Your task to perform on an android device: Open calendar and show me the second week of next month Image 0: 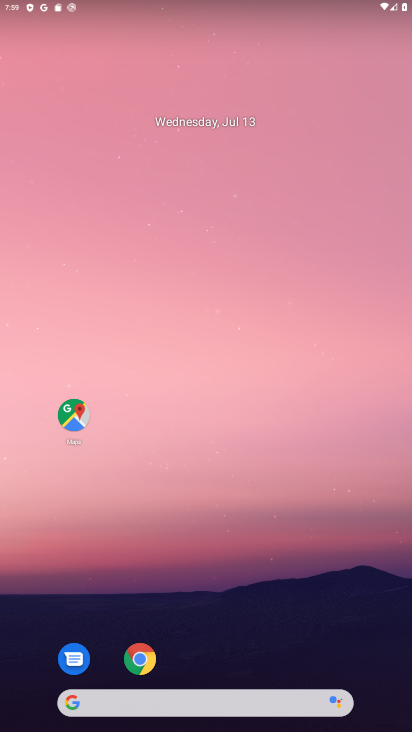
Step 0: drag from (295, 642) to (277, 65)
Your task to perform on an android device: Open calendar and show me the second week of next month Image 1: 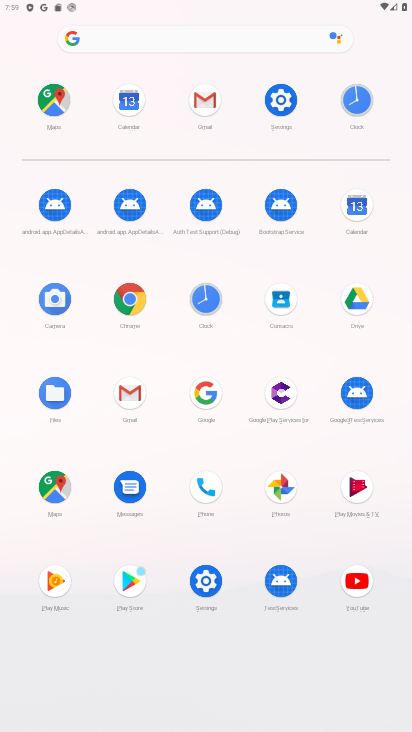
Step 1: click (134, 120)
Your task to perform on an android device: Open calendar and show me the second week of next month Image 2: 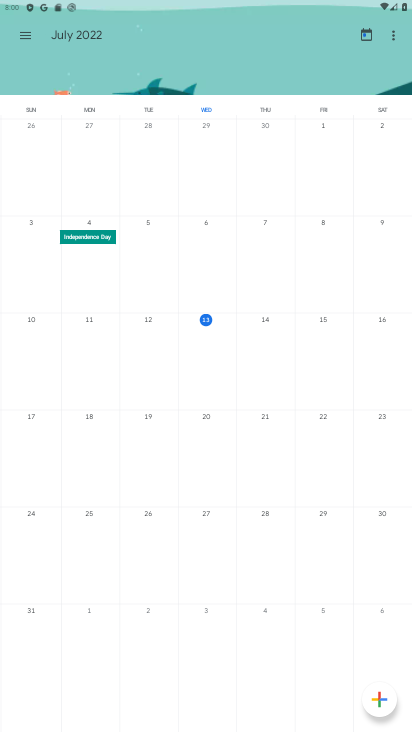
Step 2: click (397, 37)
Your task to perform on an android device: Open calendar and show me the second week of next month Image 3: 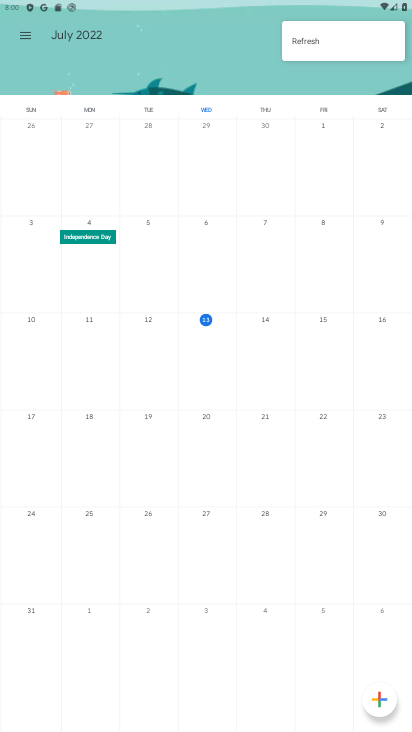
Step 3: click (66, 54)
Your task to perform on an android device: Open calendar and show me the second week of next month Image 4: 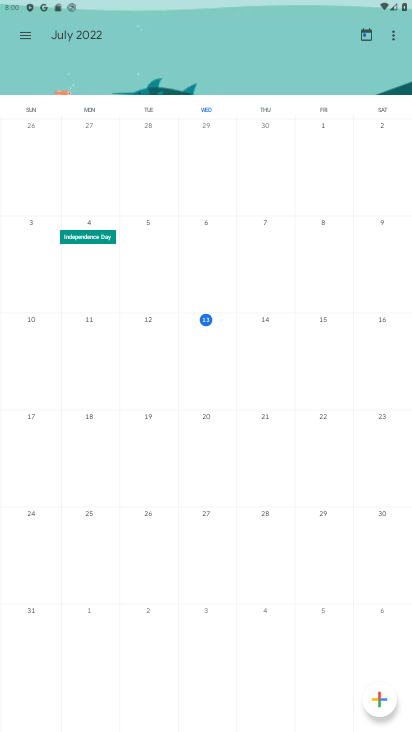
Step 4: drag from (359, 360) to (0, 391)
Your task to perform on an android device: Open calendar and show me the second week of next month Image 5: 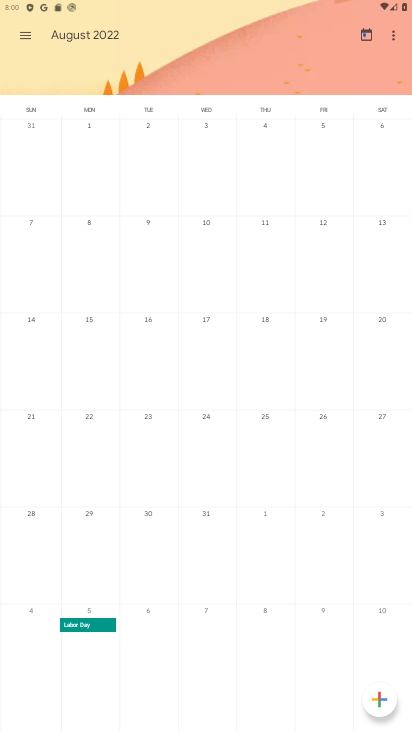
Step 5: click (189, 333)
Your task to perform on an android device: Open calendar and show me the second week of next month Image 6: 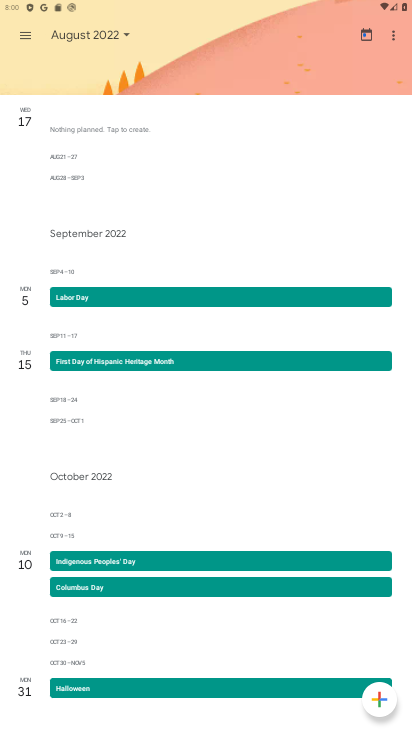
Step 6: task complete